Your task to perform on an android device: refresh tabs in the chrome app Image 0: 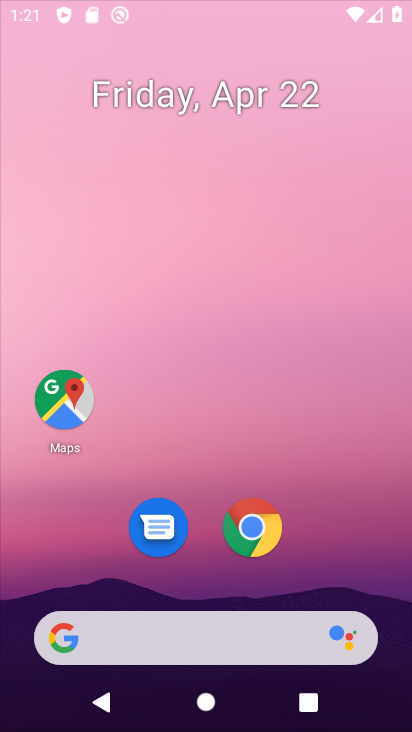
Step 0: click (366, 59)
Your task to perform on an android device: refresh tabs in the chrome app Image 1: 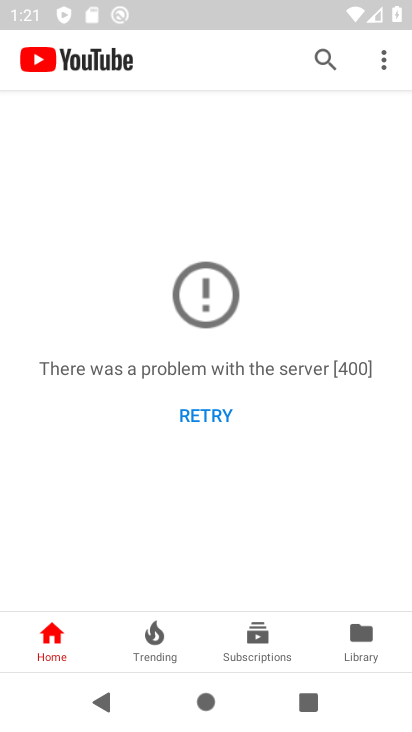
Step 1: press home button
Your task to perform on an android device: refresh tabs in the chrome app Image 2: 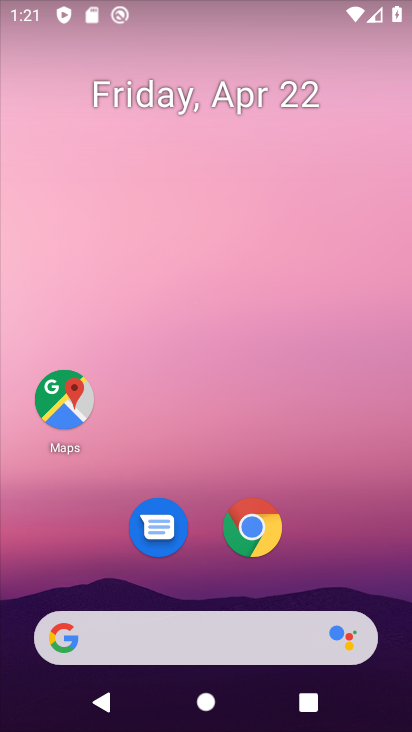
Step 2: drag from (328, 481) to (335, 46)
Your task to perform on an android device: refresh tabs in the chrome app Image 3: 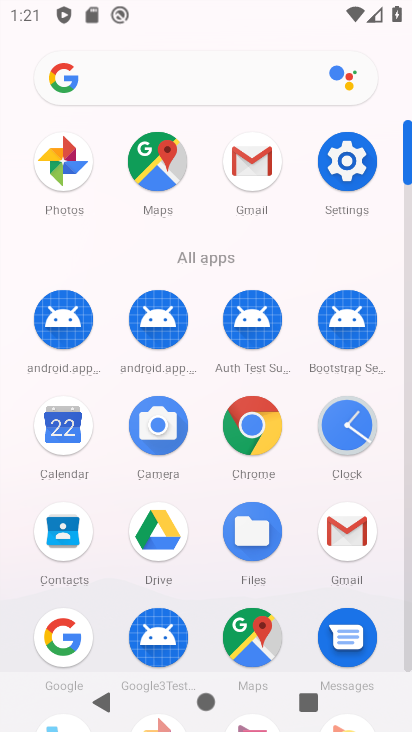
Step 3: click (259, 421)
Your task to perform on an android device: refresh tabs in the chrome app Image 4: 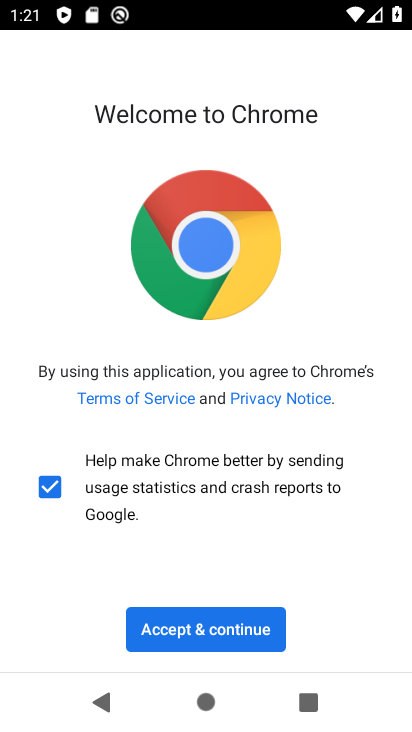
Step 4: click (208, 629)
Your task to perform on an android device: refresh tabs in the chrome app Image 5: 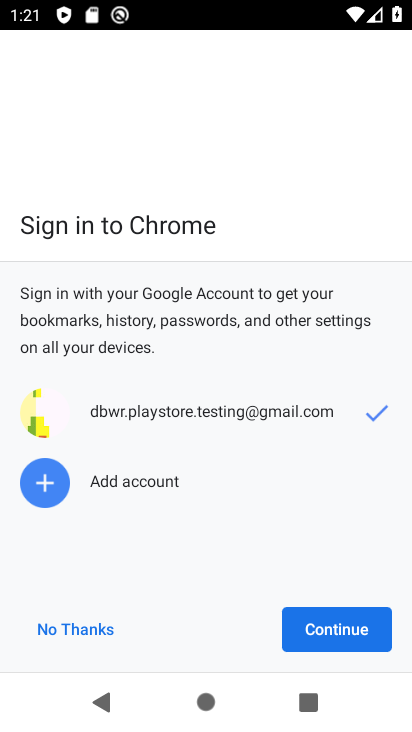
Step 5: click (62, 627)
Your task to perform on an android device: refresh tabs in the chrome app Image 6: 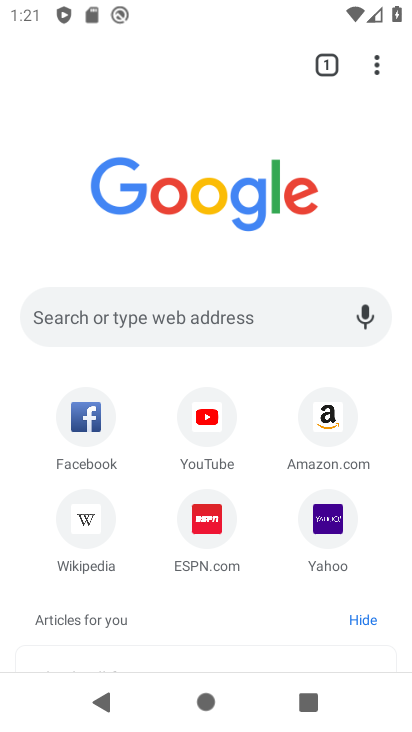
Step 6: task complete